Your task to perform on an android device: open sync settings in chrome Image 0: 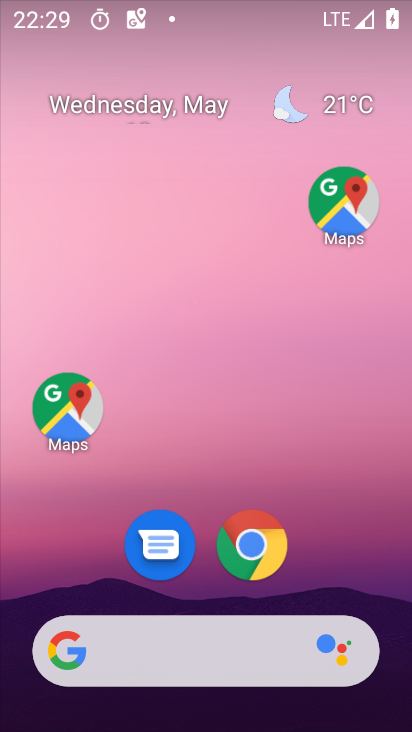
Step 0: click (264, 537)
Your task to perform on an android device: open sync settings in chrome Image 1: 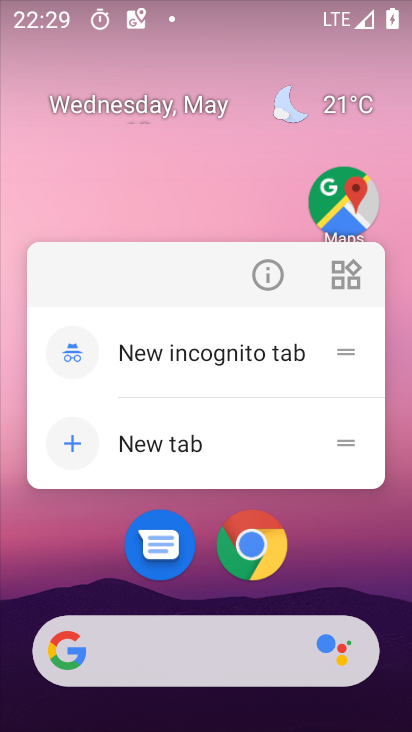
Step 1: click (245, 535)
Your task to perform on an android device: open sync settings in chrome Image 2: 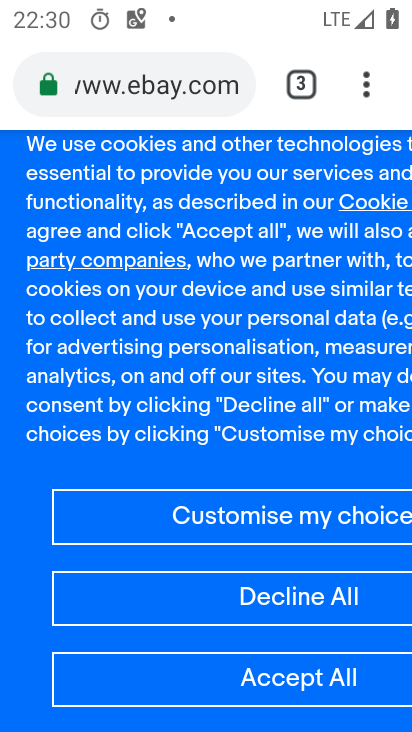
Step 2: click (361, 73)
Your task to perform on an android device: open sync settings in chrome Image 3: 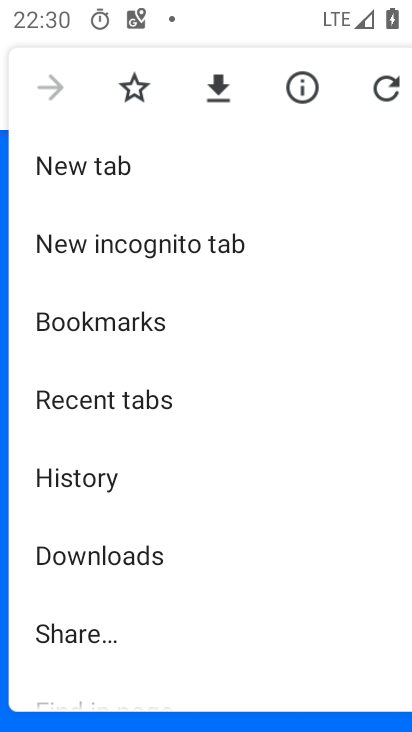
Step 3: drag from (105, 626) to (148, 342)
Your task to perform on an android device: open sync settings in chrome Image 4: 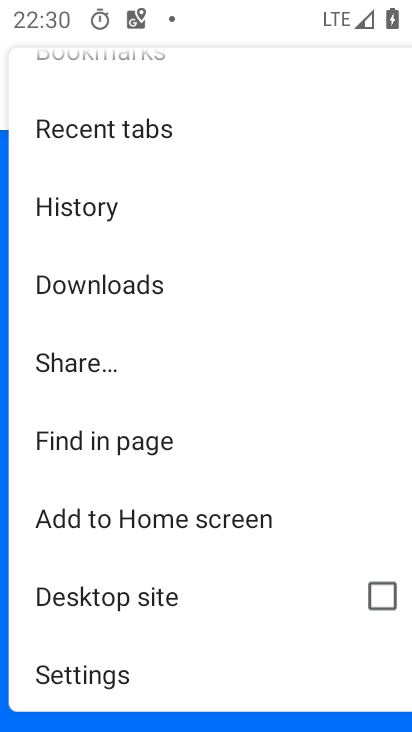
Step 4: click (76, 677)
Your task to perform on an android device: open sync settings in chrome Image 5: 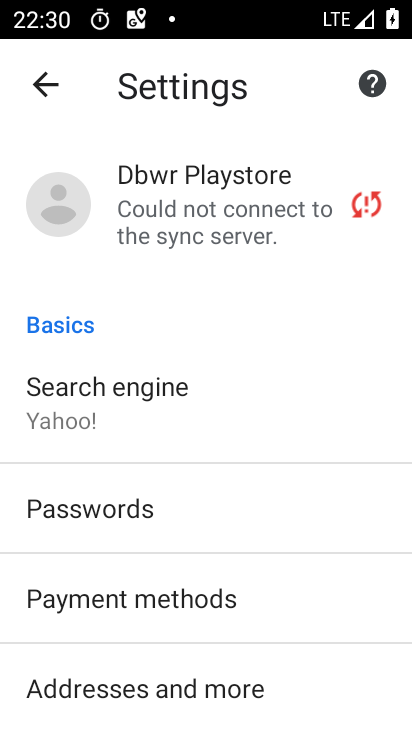
Step 5: click (189, 236)
Your task to perform on an android device: open sync settings in chrome Image 6: 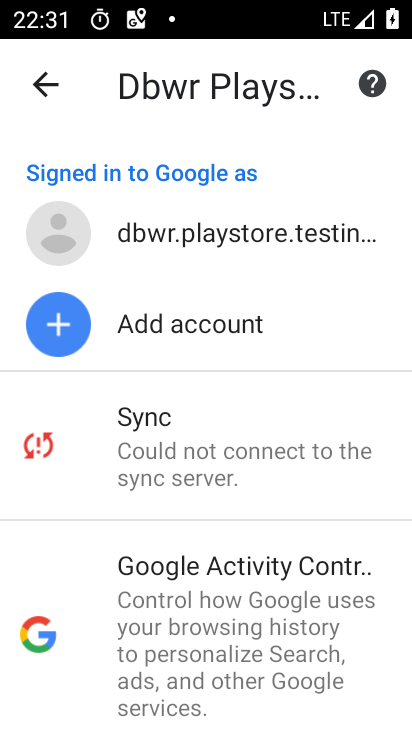
Step 6: click (164, 476)
Your task to perform on an android device: open sync settings in chrome Image 7: 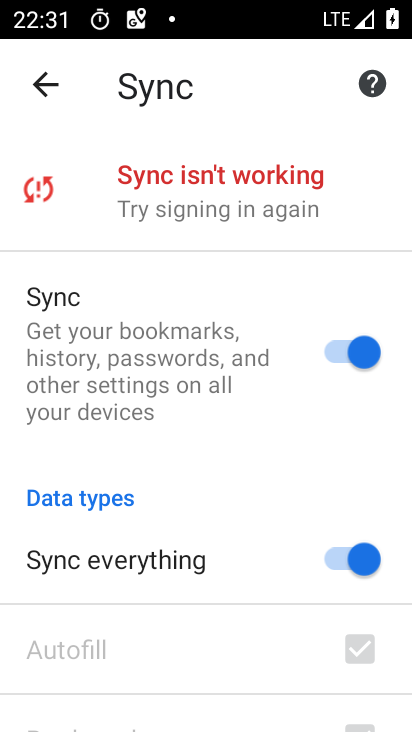
Step 7: task complete